Your task to perform on an android device: see creations saved in the google photos Image 0: 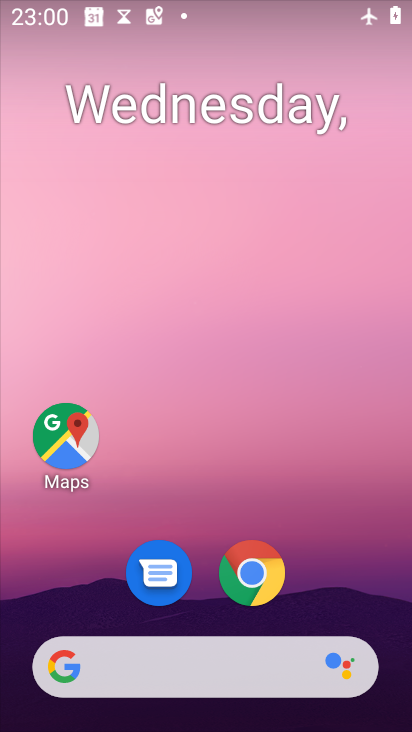
Step 0: drag from (341, 578) to (332, 234)
Your task to perform on an android device: see creations saved in the google photos Image 1: 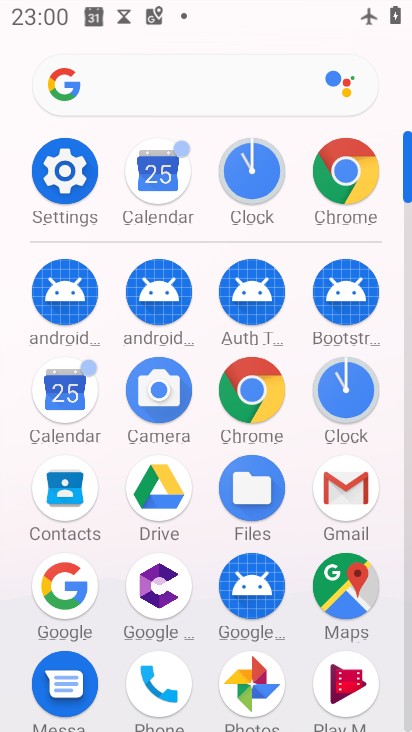
Step 1: click (242, 677)
Your task to perform on an android device: see creations saved in the google photos Image 2: 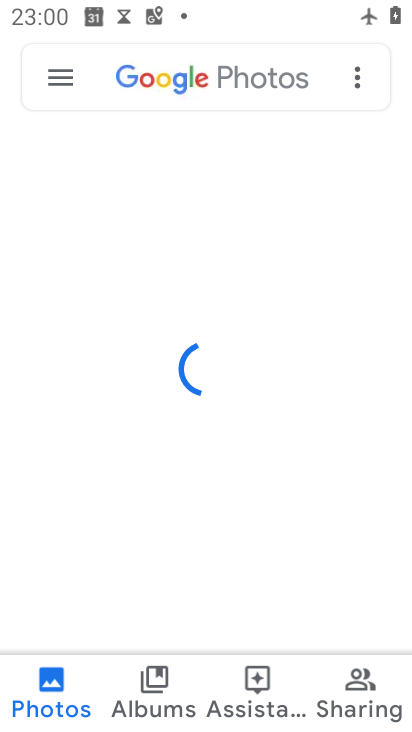
Step 2: click (147, 675)
Your task to perform on an android device: see creations saved in the google photos Image 3: 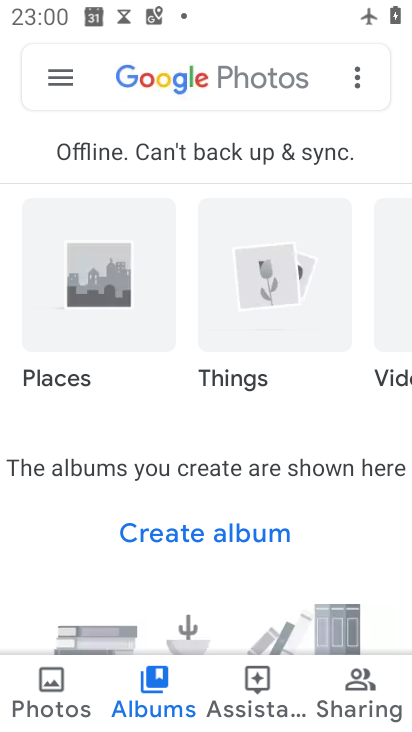
Step 3: click (50, 670)
Your task to perform on an android device: see creations saved in the google photos Image 4: 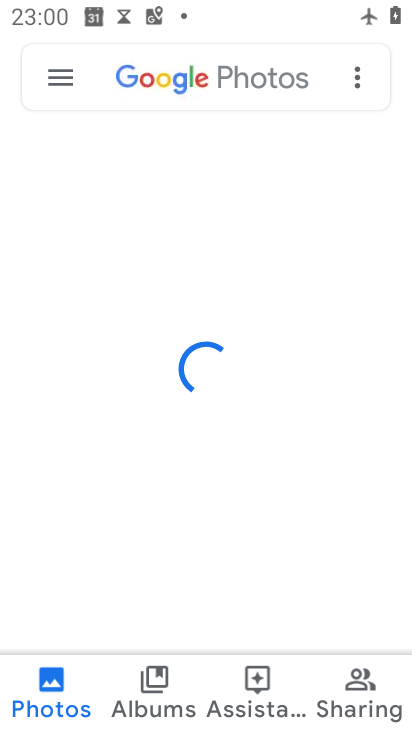
Step 4: click (138, 699)
Your task to perform on an android device: see creations saved in the google photos Image 5: 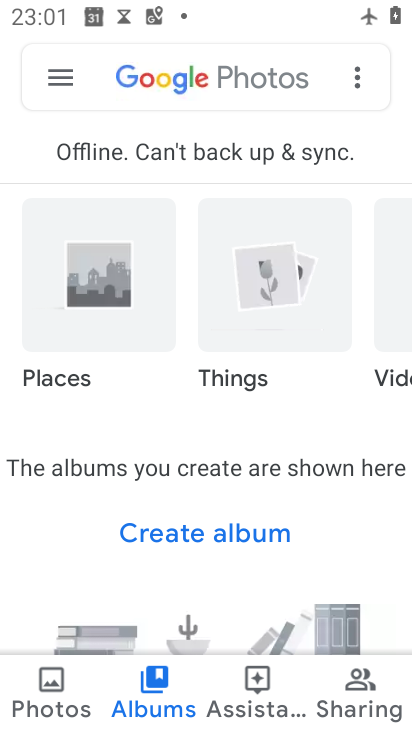
Step 5: task complete